Your task to perform on an android device: toggle airplane mode Image 0: 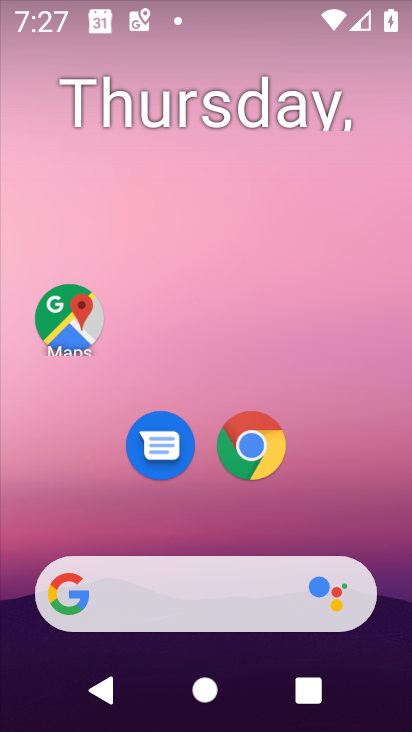
Step 0: drag from (270, 1) to (225, 539)
Your task to perform on an android device: toggle airplane mode Image 1: 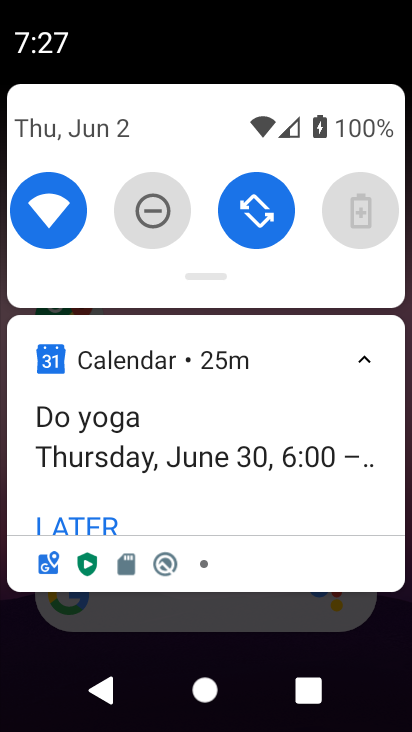
Step 1: drag from (221, 262) to (247, 626)
Your task to perform on an android device: toggle airplane mode Image 2: 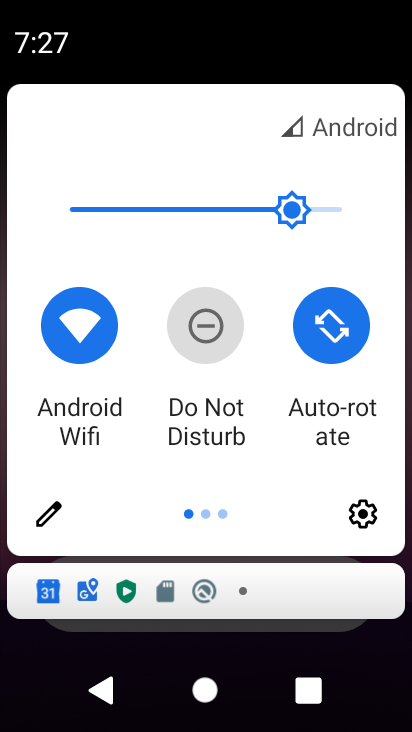
Step 2: drag from (325, 390) to (7, 272)
Your task to perform on an android device: toggle airplane mode Image 3: 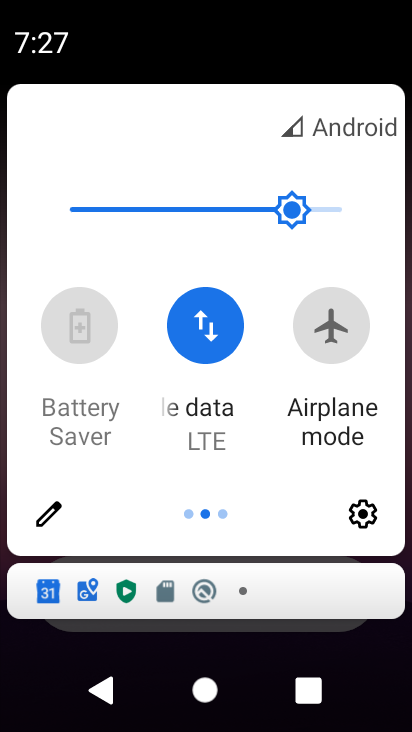
Step 3: click (327, 336)
Your task to perform on an android device: toggle airplane mode Image 4: 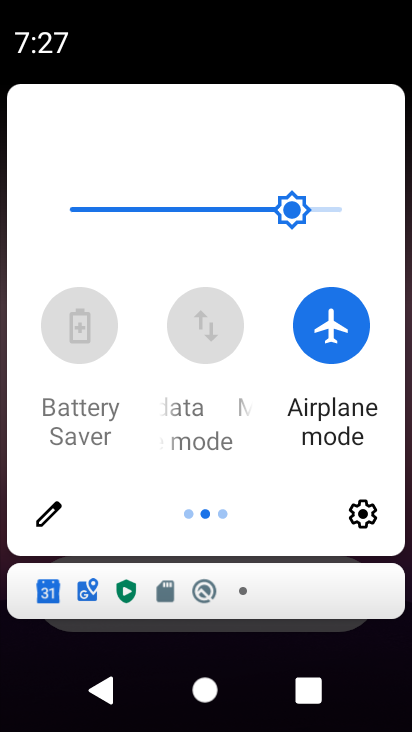
Step 4: task complete